Your task to perform on an android device: Go to internet settings Image 0: 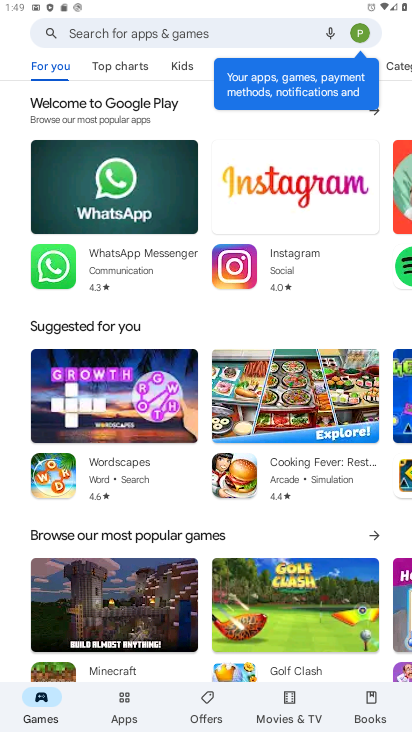
Step 0: press home button
Your task to perform on an android device: Go to internet settings Image 1: 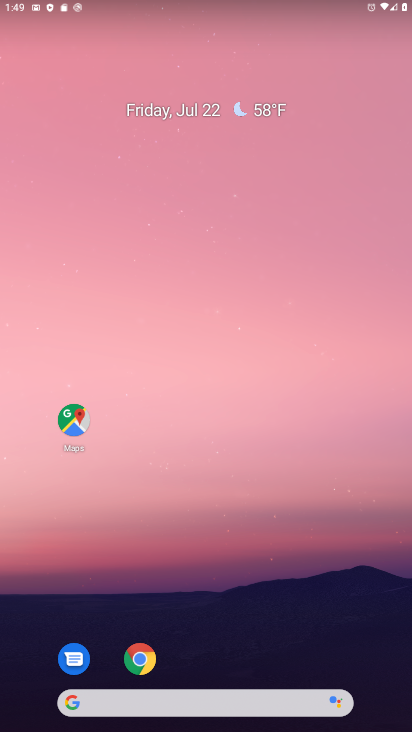
Step 1: drag from (219, 671) to (206, 32)
Your task to perform on an android device: Go to internet settings Image 2: 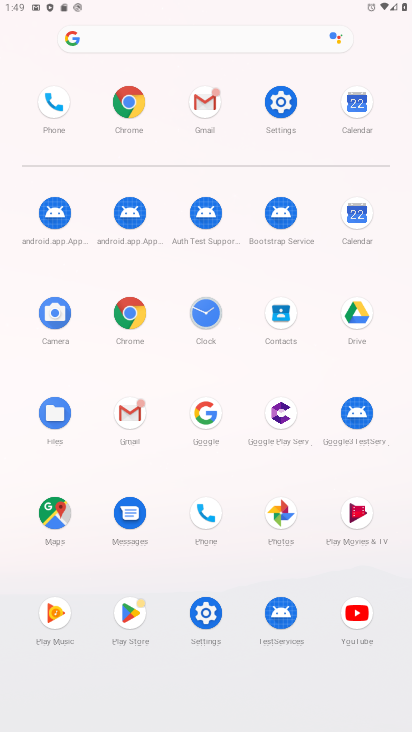
Step 2: click (281, 112)
Your task to perform on an android device: Go to internet settings Image 3: 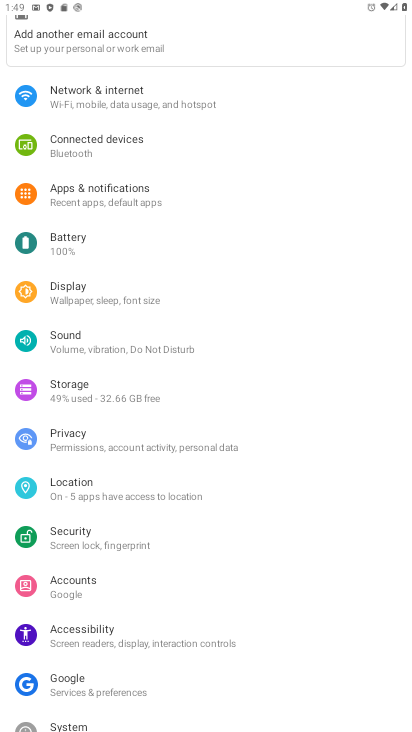
Step 3: drag from (138, 664) to (109, 69)
Your task to perform on an android device: Go to internet settings Image 4: 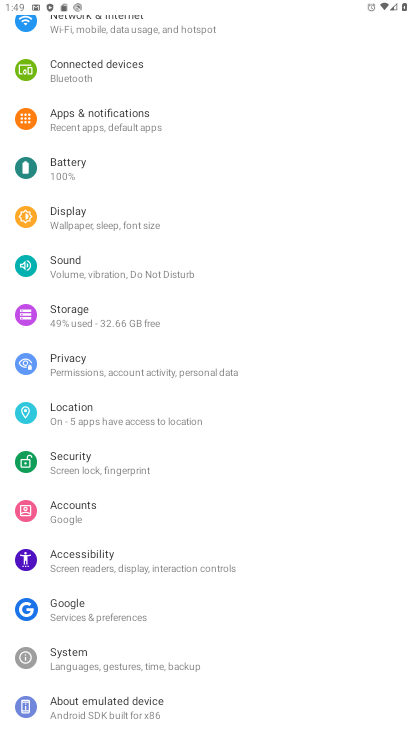
Step 4: drag from (125, 54) to (115, 729)
Your task to perform on an android device: Go to internet settings Image 5: 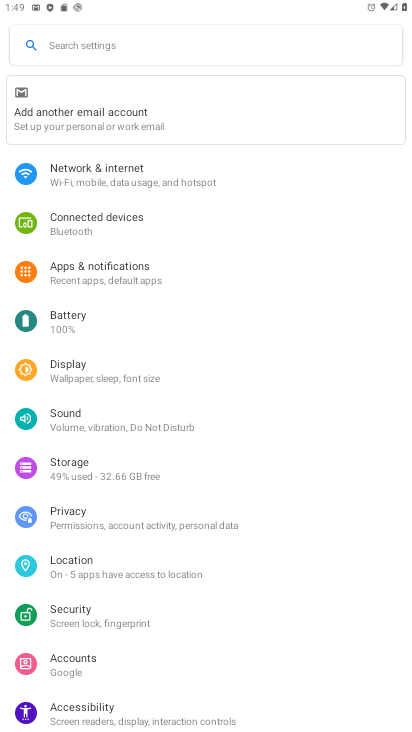
Step 5: click (66, 188)
Your task to perform on an android device: Go to internet settings Image 6: 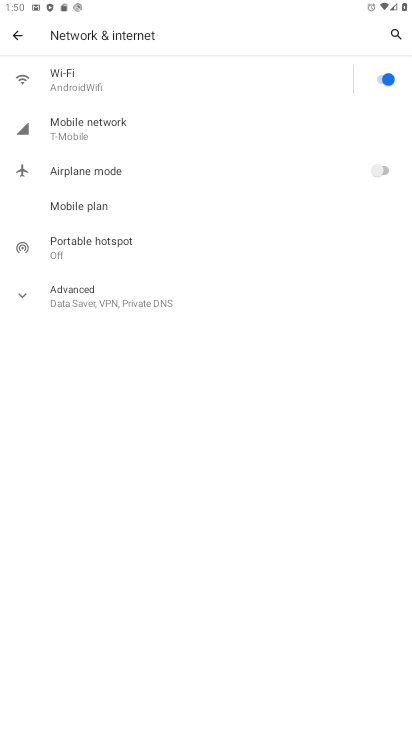
Step 6: click (73, 136)
Your task to perform on an android device: Go to internet settings Image 7: 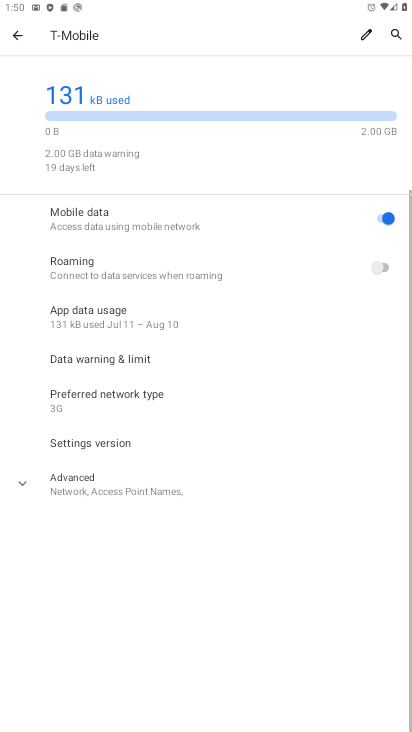
Step 7: task complete